Your task to perform on an android device: change notification settings in the gmail app Image 0: 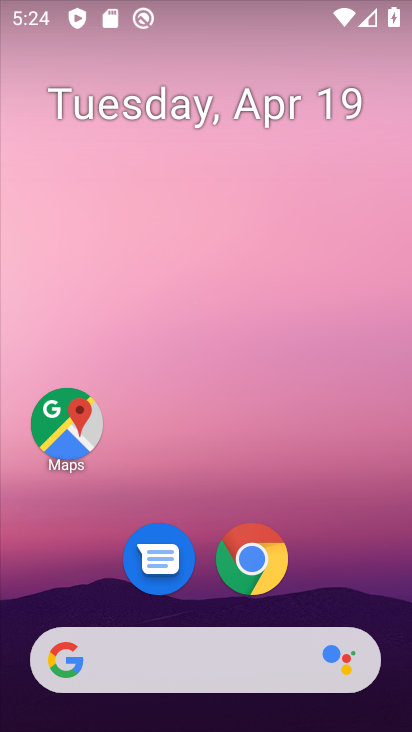
Step 0: drag from (364, 596) to (261, 11)
Your task to perform on an android device: change notification settings in the gmail app Image 1: 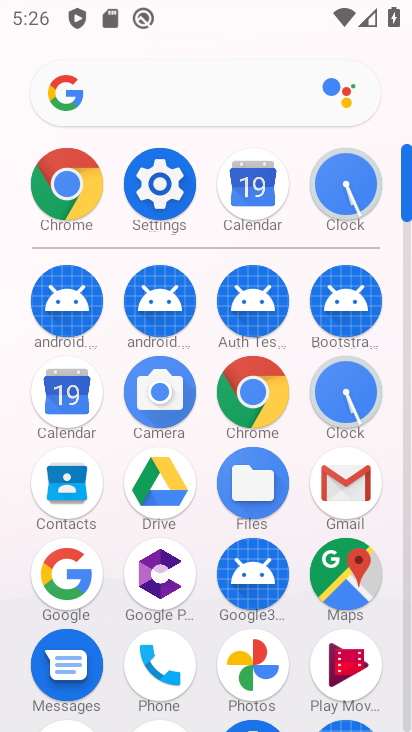
Step 1: click (346, 486)
Your task to perform on an android device: change notification settings in the gmail app Image 2: 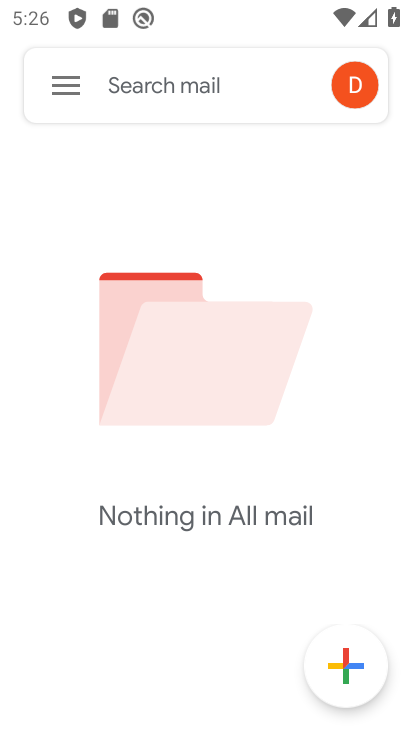
Step 2: click (78, 93)
Your task to perform on an android device: change notification settings in the gmail app Image 3: 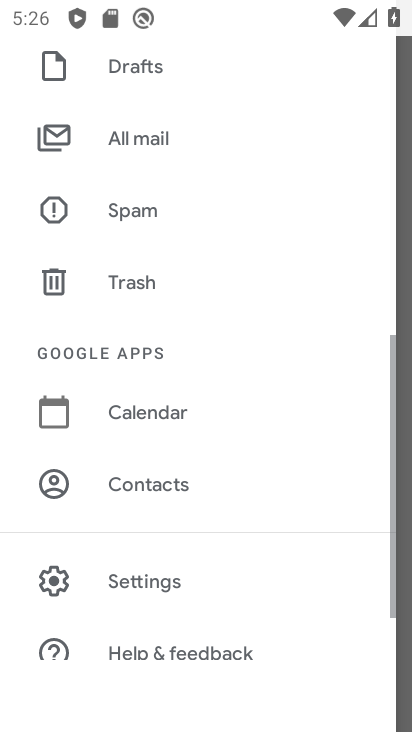
Step 3: click (125, 594)
Your task to perform on an android device: change notification settings in the gmail app Image 4: 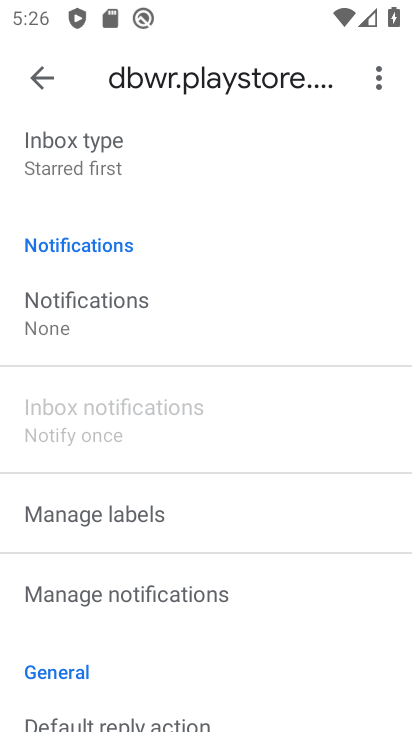
Step 4: click (42, 69)
Your task to perform on an android device: change notification settings in the gmail app Image 5: 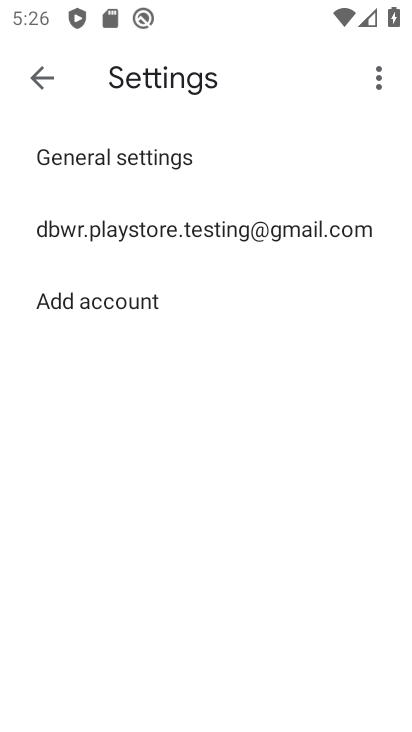
Step 5: click (69, 147)
Your task to perform on an android device: change notification settings in the gmail app Image 6: 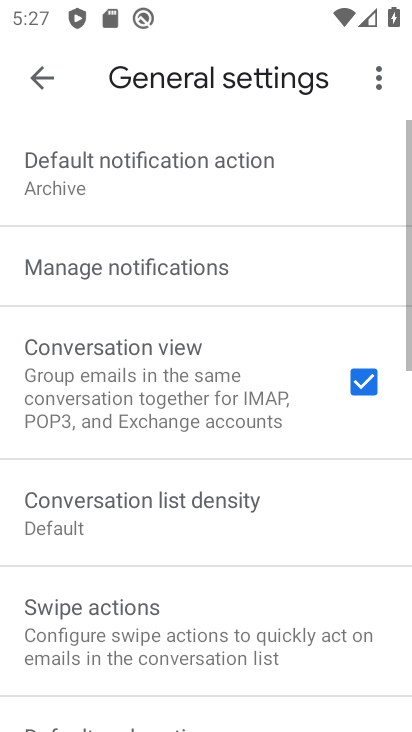
Step 6: click (157, 265)
Your task to perform on an android device: change notification settings in the gmail app Image 7: 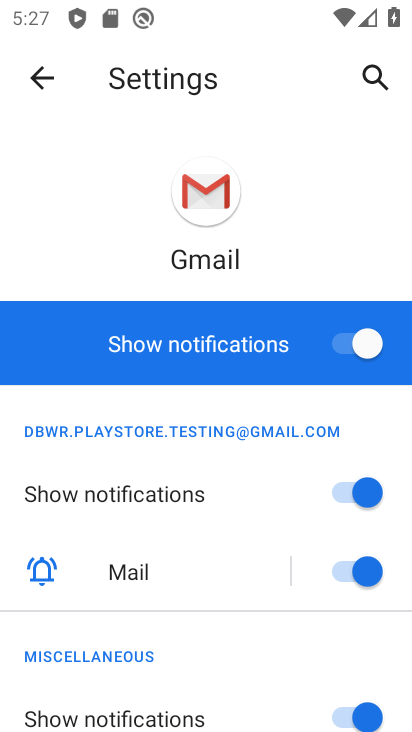
Step 7: click (366, 350)
Your task to perform on an android device: change notification settings in the gmail app Image 8: 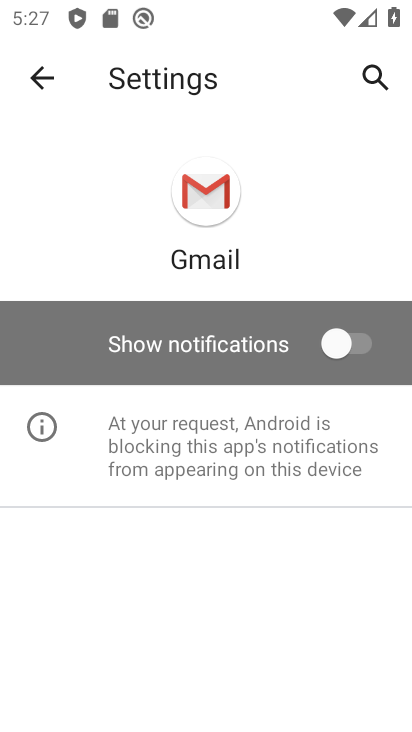
Step 8: task complete